Your task to perform on an android device: Open Google Image 0: 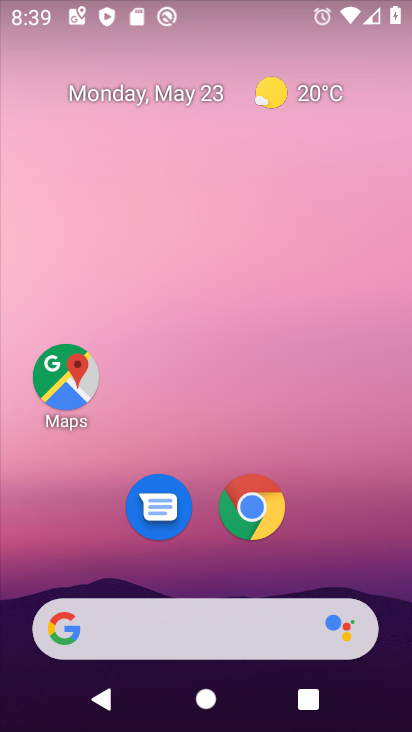
Step 0: drag from (391, 587) to (384, 38)
Your task to perform on an android device: Open Google Image 1: 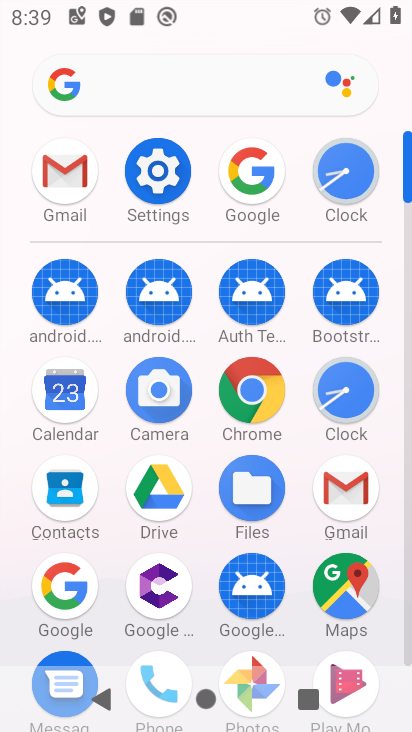
Step 1: click (77, 594)
Your task to perform on an android device: Open Google Image 2: 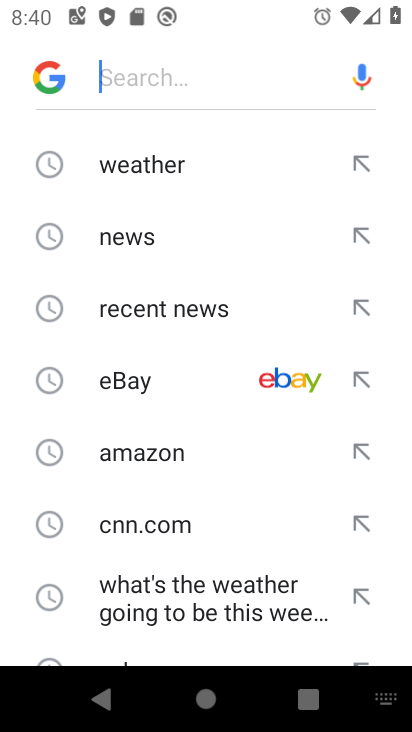
Step 2: task complete